Your task to perform on an android device: Clear all items from cart on target.com. Add logitech g502 to the cart on target.com Image 0: 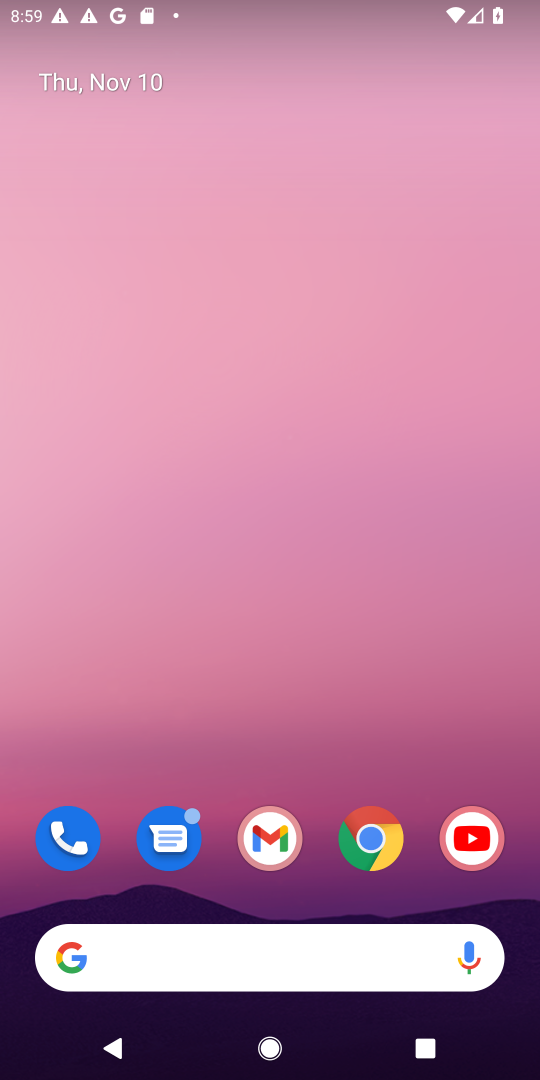
Step 0: drag from (336, 888) to (286, 48)
Your task to perform on an android device: Clear all items from cart on target.com. Add logitech g502 to the cart on target.com Image 1: 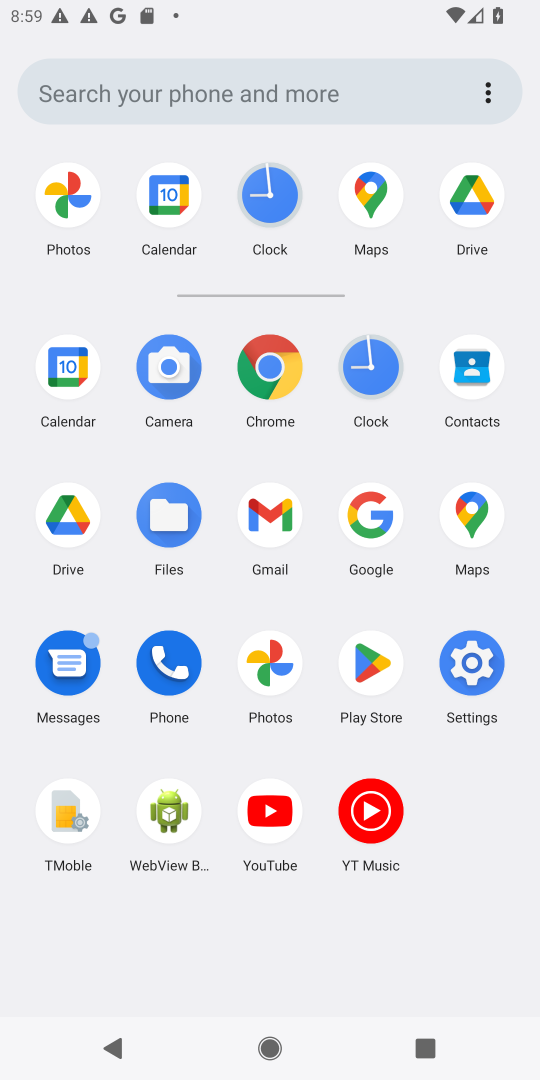
Step 1: click (260, 368)
Your task to perform on an android device: Clear all items from cart on target.com. Add logitech g502 to the cart on target.com Image 2: 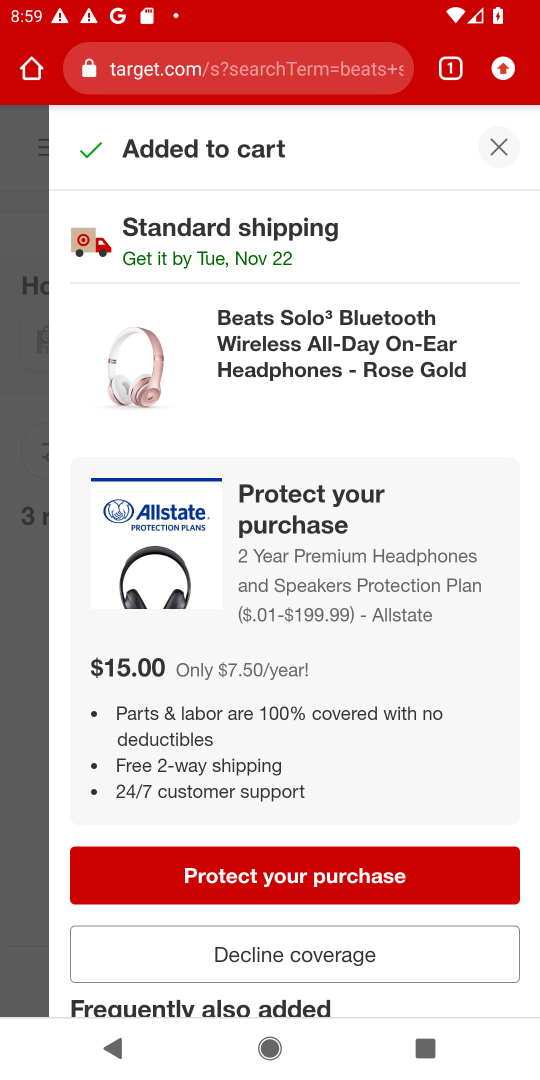
Step 2: click (291, 72)
Your task to perform on an android device: Clear all items from cart on target.com. Add logitech g502 to the cart on target.com Image 3: 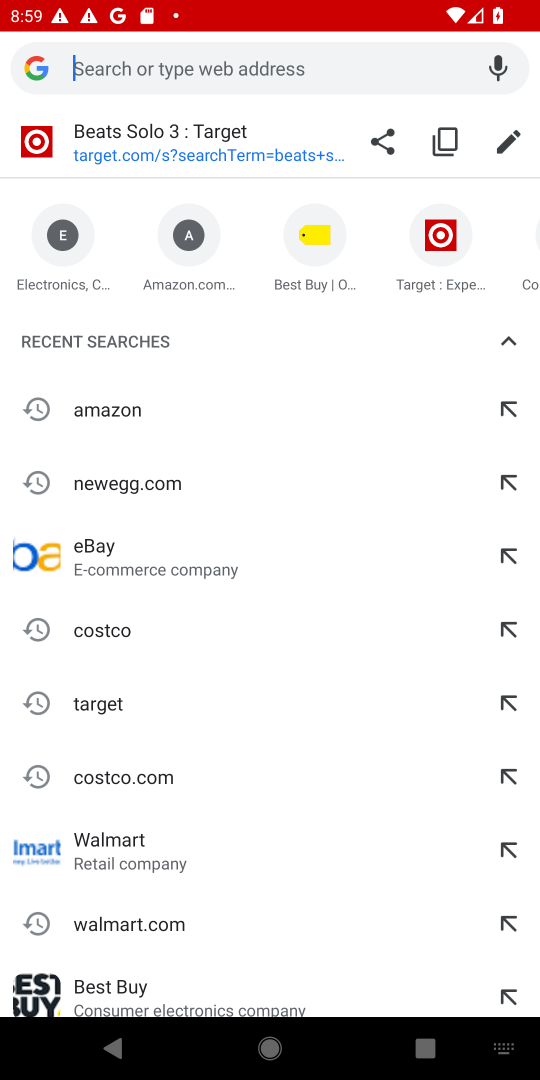
Step 3: type "target.com"
Your task to perform on an android device: Clear all items from cart on target.com. Add logitech g502 to the cart on target.com Image 4: 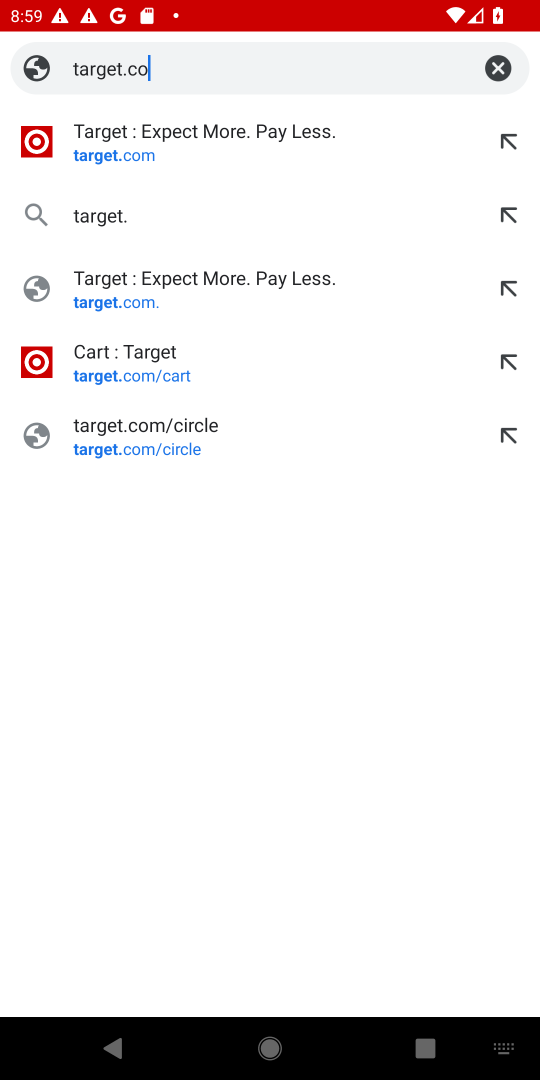
Step 4: press enter
Your task to perform on an android device: Clear all items from cart on target.com. Add logitech g502 to the cart on target.com Image 5: 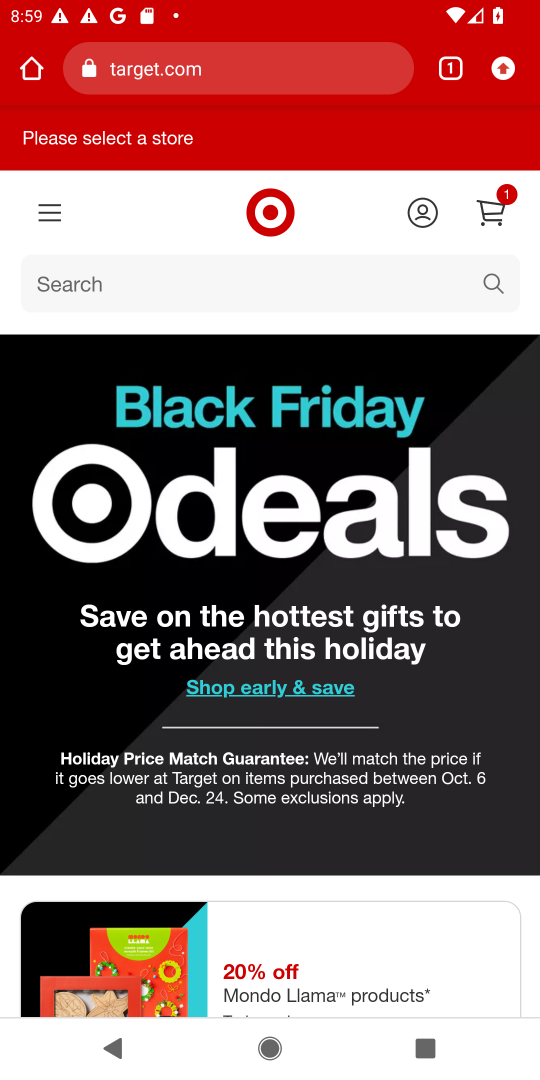
Step 5: click (507, 213)
Your task to perform on an android device: Clear all items from cart on target.com. Add logitech g502 to the cart on target.com Image 6: 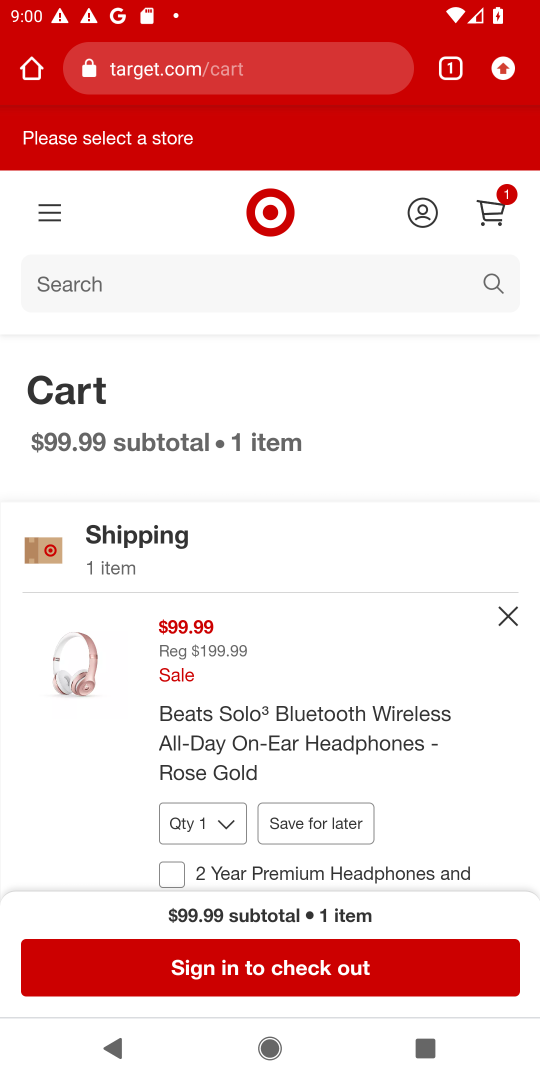
Step 6: drag from (307, 738) to (386, 252)
Your task to perform on an android device: Clear all items from cart on target.com. Add logitech g502 to the cart on target.com Image 7: 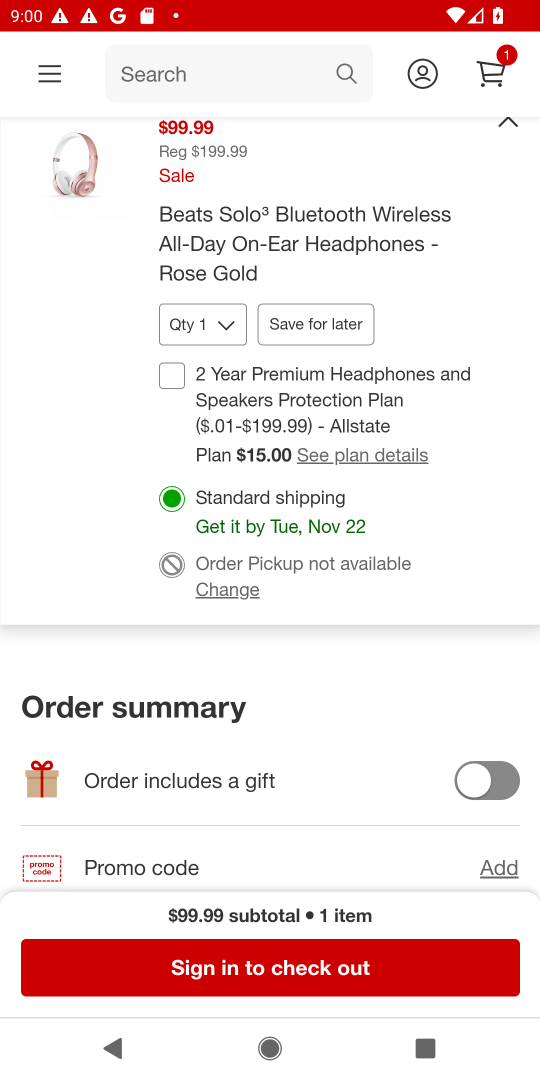
Step 7: drag from (476, 271) to (476, 459)
Your task to perform on an android device: Clear all items from cart on target.com. Add logitech g502 to the cart on target.com Image 8: 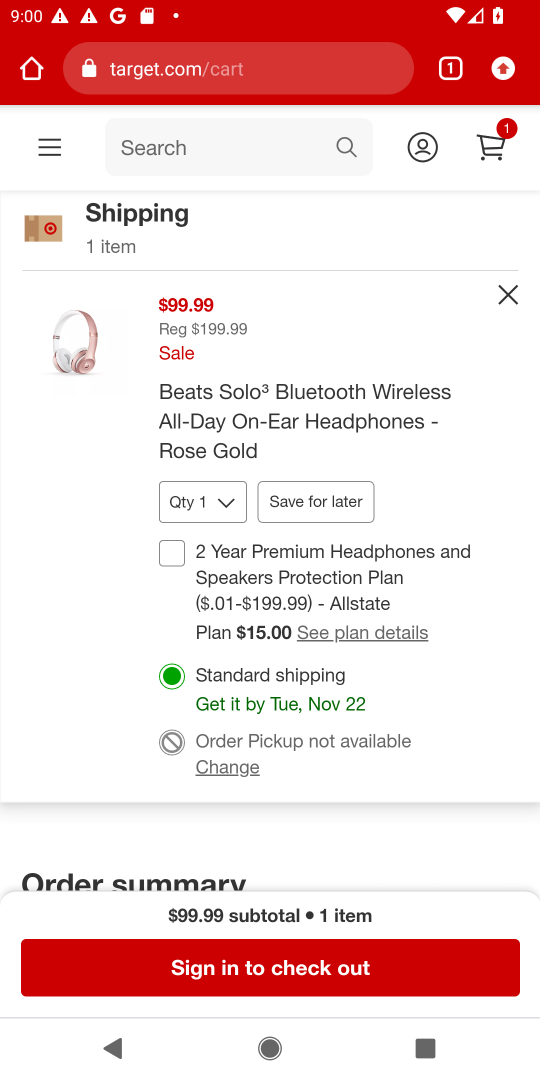
Step 8: click (506, 293)
Your task to perform on an android device: Clear all items from cart on target.com. Add logitech g502 to the cart on target.com Image 9: 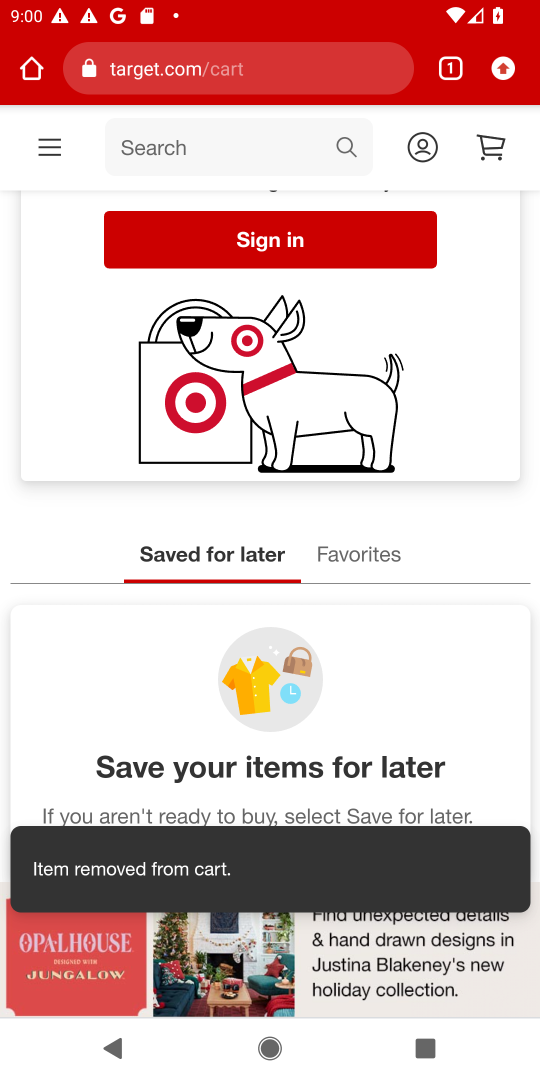
Step 9: click (251, 140)
Your task to perform on an android device: Clear all items from cart on target.com. Add logitech g502 to the cart on target.com Image 10: 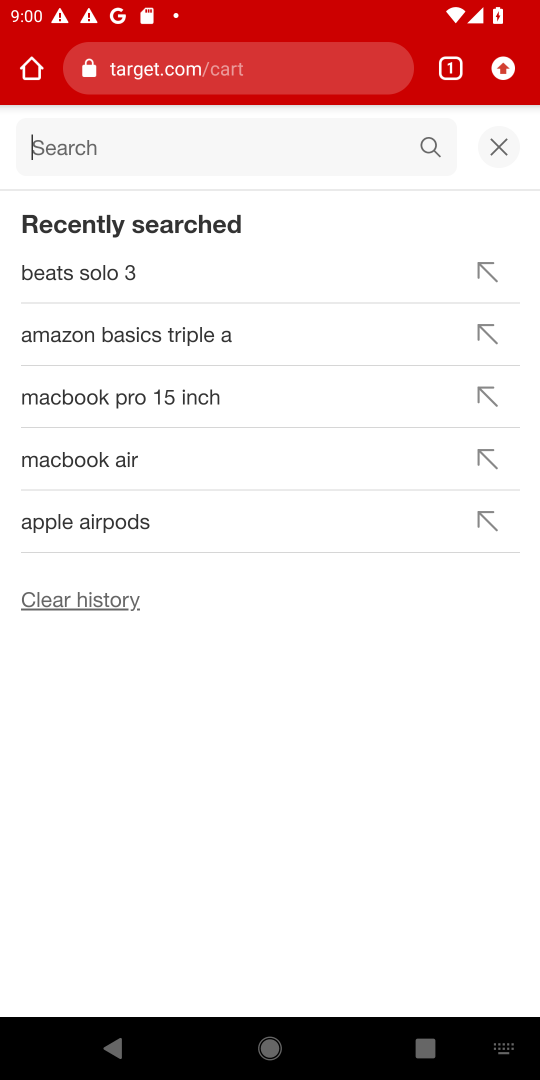
Step 10: type "logitech g502"
Your task to perform on an android device: Clear all items from cart on target.com. Add logitech g502 to the cart on target.com Image 11: 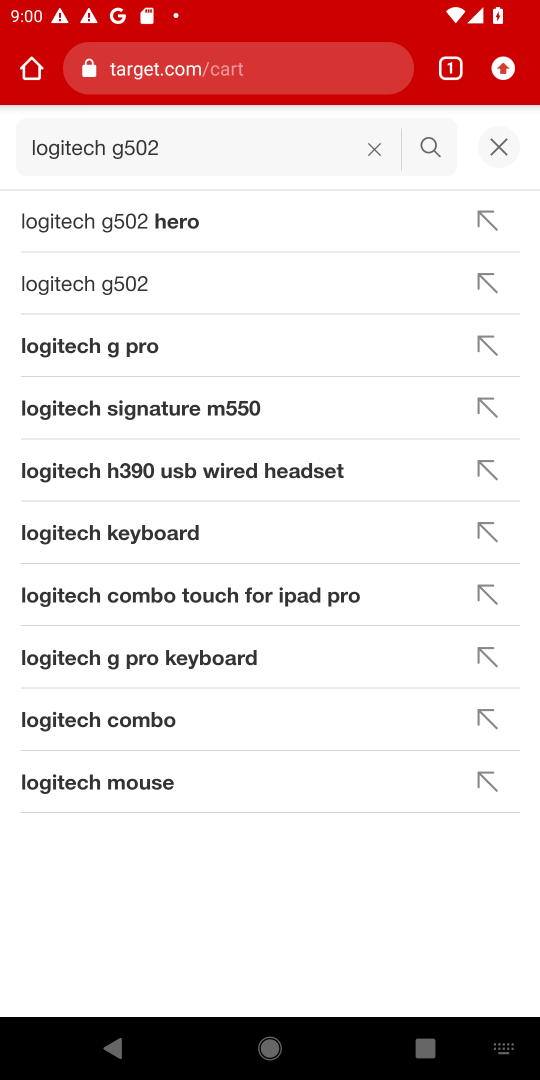
Step 11: press enter
Your task to perform on an android device: Clear all items from cart on target.com. Add logitech g502 to the cart on target.com Image 12: 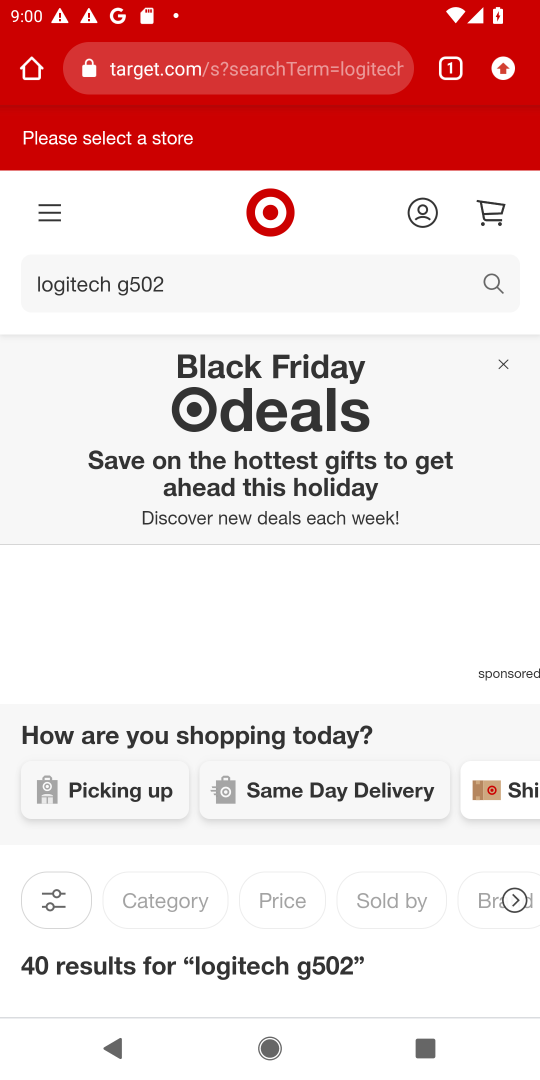
Step 12: drag from (336, 863) to (261, 119)
Your task to perform on an android device: Clear all items from cart on target.com. Add logitech g502 to the cart on target.com Image 13: 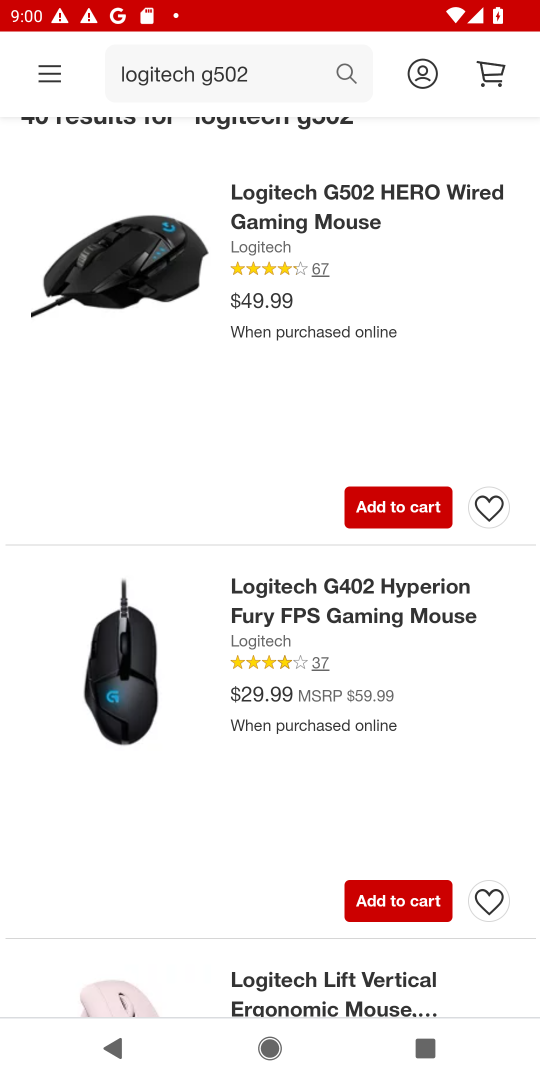
Step 13: click (391, 508)
Your task to perform on an android device: Clear all items from cart on target.com. Add logitech g502 to the cart on target.com Image 14: 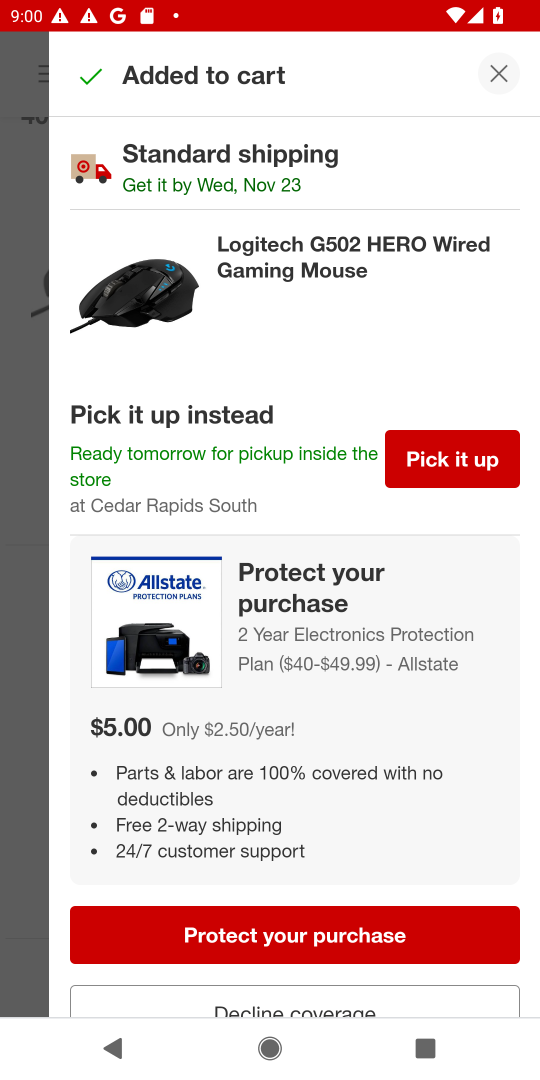
Step 14: task complete